Your task to perform on an android device: Open the stopwatch Image 0: 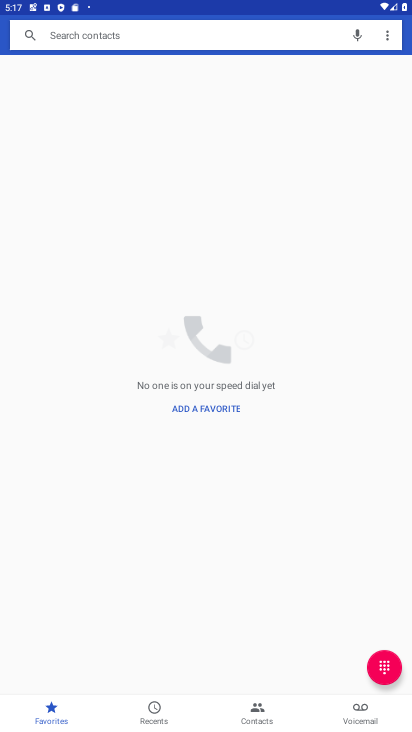
Step 0: press home button
Your task to perform on an android device: Open the stopwatch Image 1: 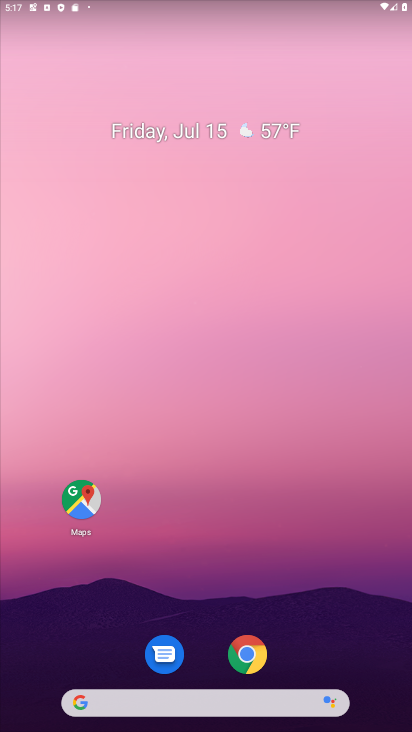
Step 1: drag from (193, 668) to (191, 77)
Your task to perform on an android device: Open the stopwatch Image 2: 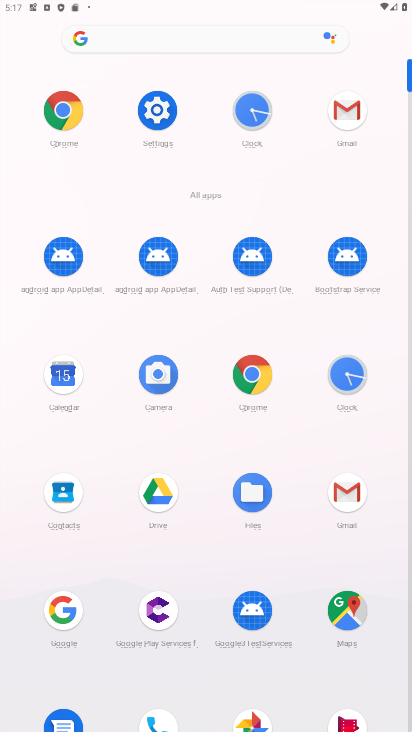
Step 2: click (243, 116)
Your task to perform on an android device: Open the stopwatch Image 3: 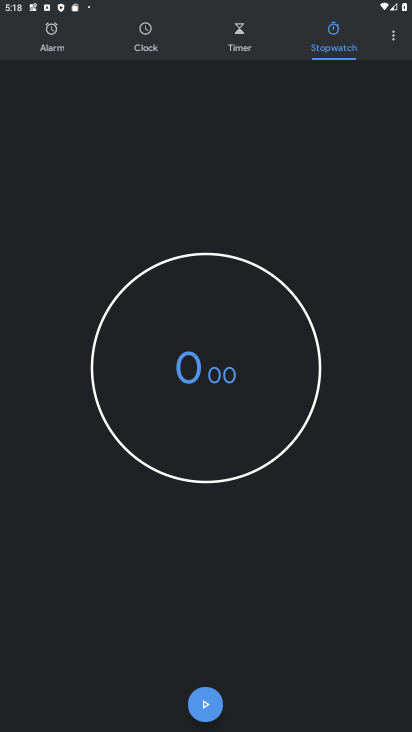
Step 3: task complete